Your task to perform on an android device: star an email in the gmail app Image 0: 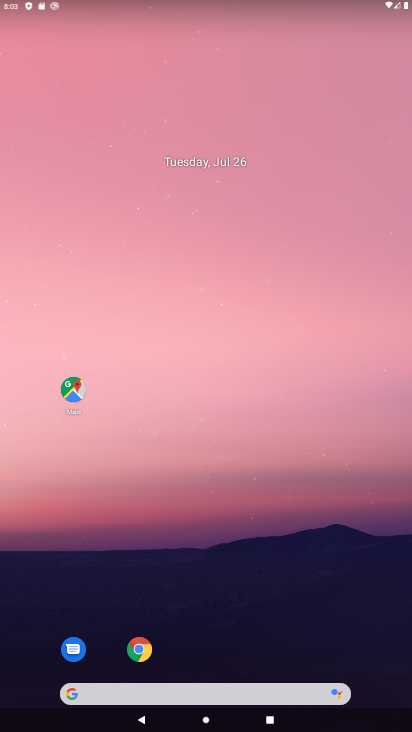
Step 0: drag from (232, 714) to (232, 388)
Your task to perform on an android device: star an email in the gmail app Image 1: 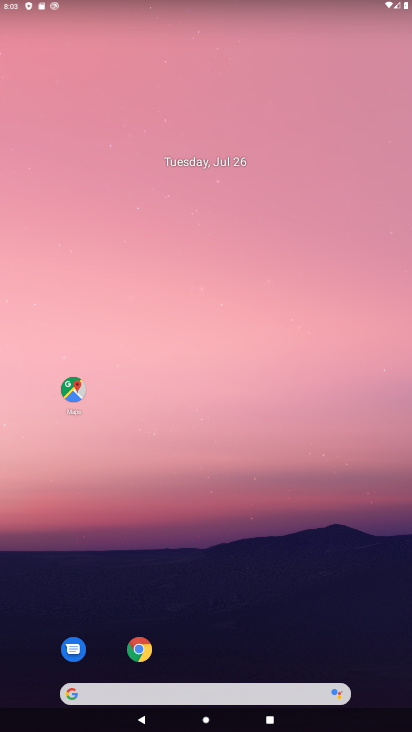
Step 1: drag from (229, 724) to (227, 239)
Your task to perform on an android device: star an email in the gmail app Image 2: 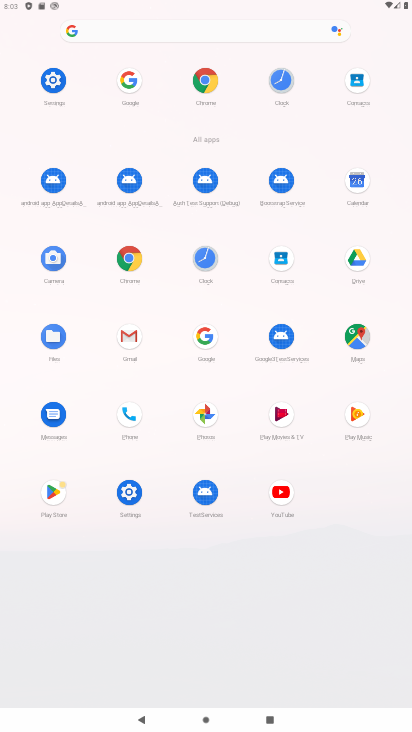
Step 2: click (127, 336)
Your task to perform on an android device: star an email in the gmail app Image 3: 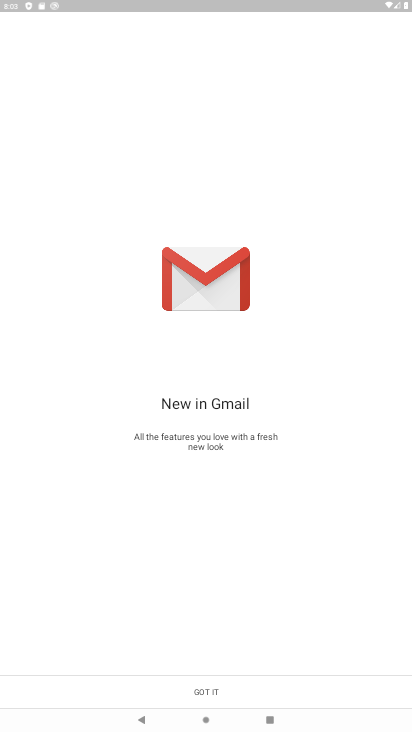
Step 3: click (195, 688)
Your task to perform on an android device: star an email in the gmail app Image 4: 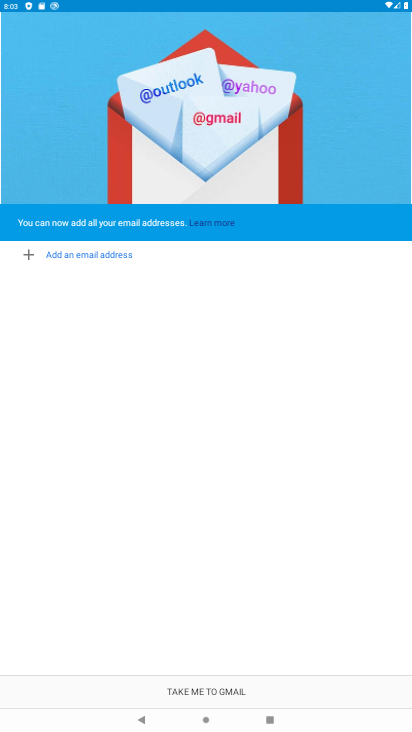
Step 4: click (195, 688)
Your task to perform on an android device: star an email in the gmail app Image 5: 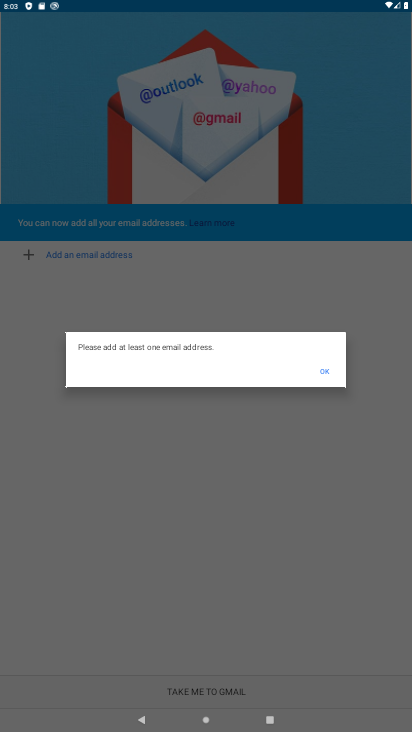
Step 5: task complete